Your task to perform on an android device: check android version Image 0: 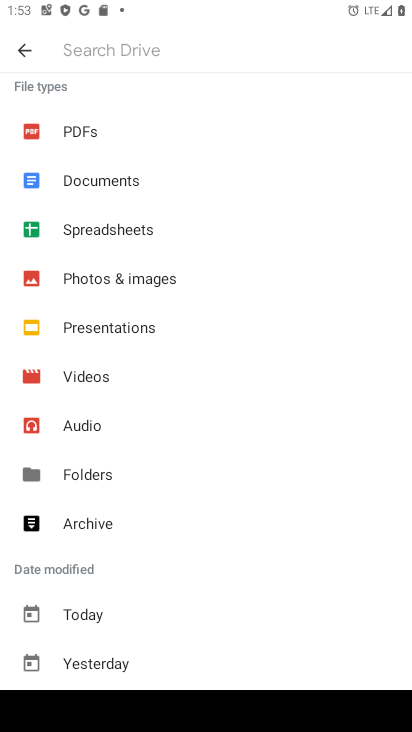
Step 0: press home button
Your task to perform on an android device: check android version Image 1: 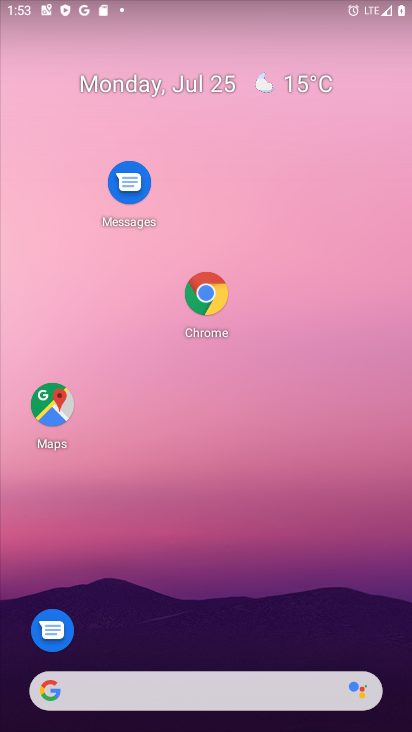
Step 1: drag from (298, 580) to (405, 179)
Your task to perform on an android device: check android version Image 2: 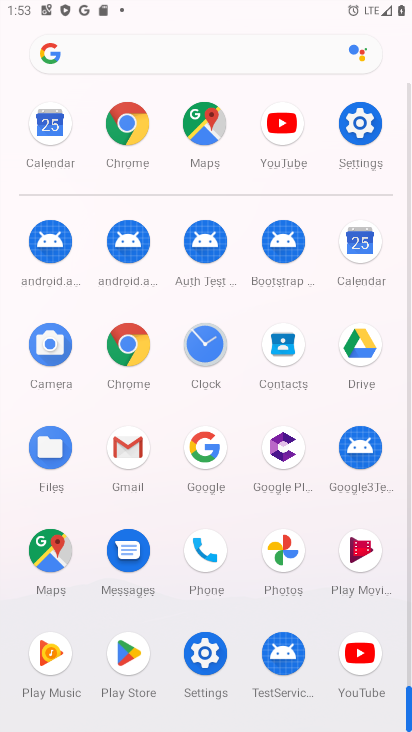
Step 2: drag from (166, 649) to (335, 115)
Your task to perform on an android device: check android version Image 3: 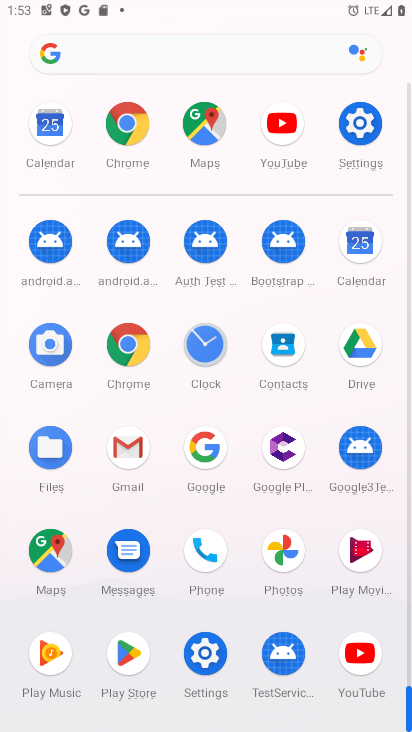
Step 3: click (201, 654)
Your task to perform on an android device: check android version Image 4: 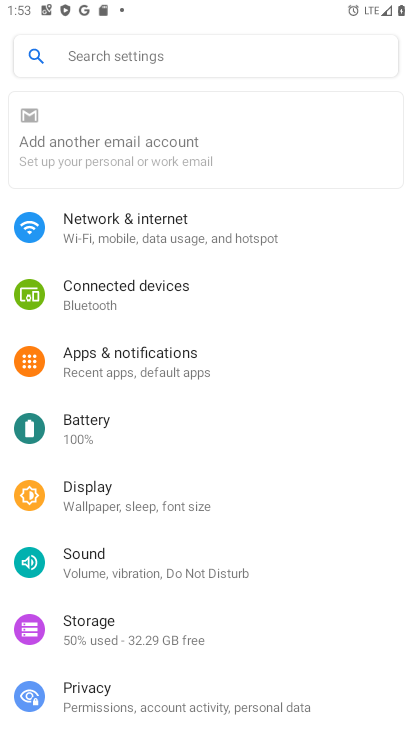
Step 4: drag from (244, 668) to (327, 179)
Your task to perform on an android device: check android version Image 5: 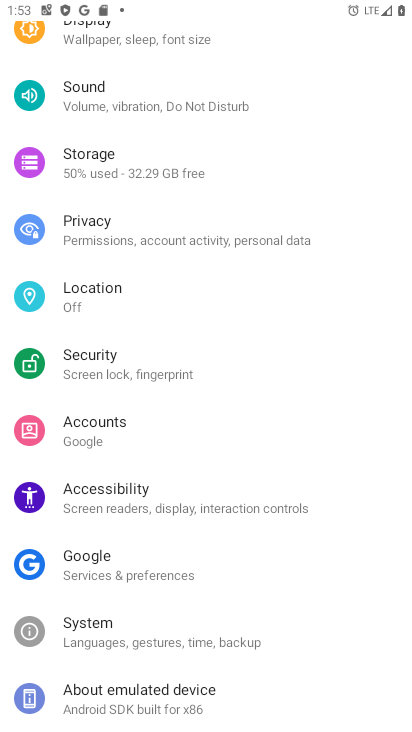
Step 5: click (131, 715)
Your task to perform on an android device: check android version Image 6: 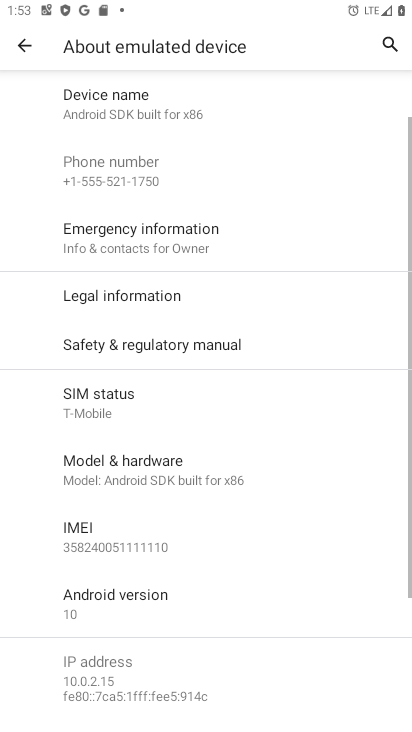
Step 6: click (134, 600)
Your task to perform on an android device: check android version Image 7: 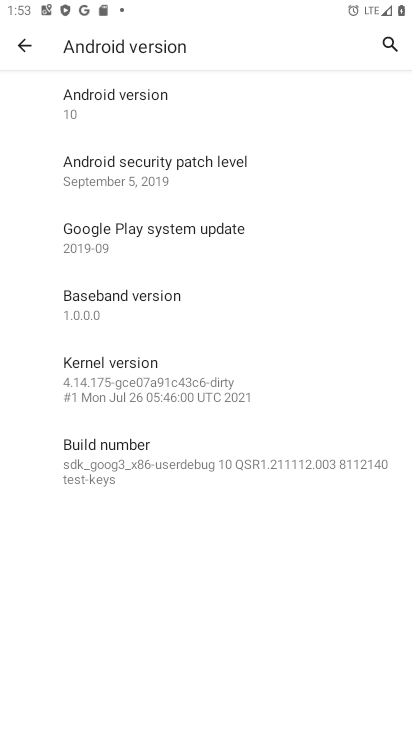
Step 7: task complete